Your task to perform on an android device: See recent photos Image 0: 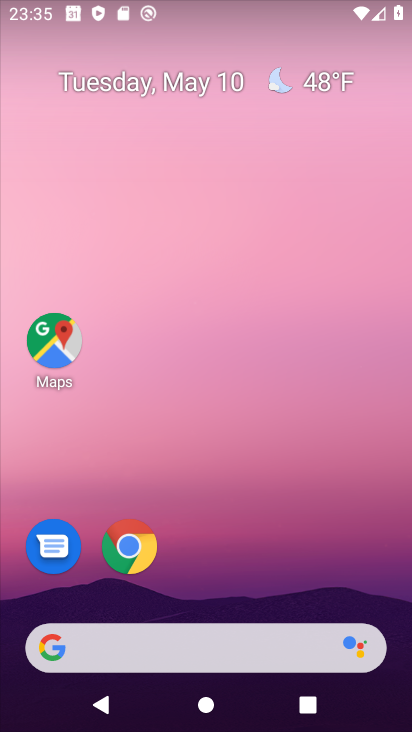
Step 0: press home button
Your task to perform on an android device: See recent photos Image 1: 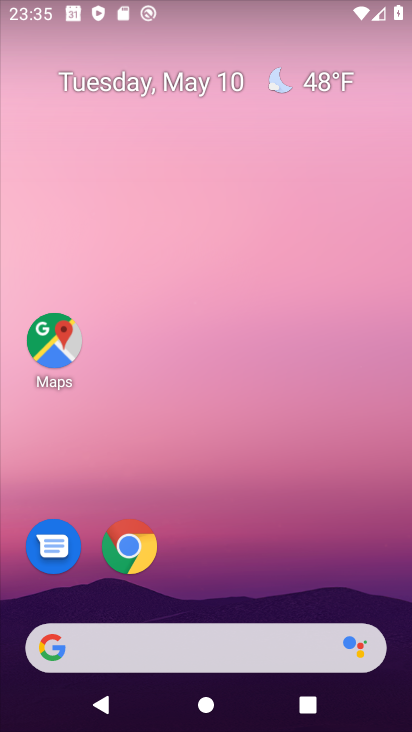
Step 1: drag from (217, 575) to (221, 184)
Your task to perform on an android device: See recent photos Image 2: 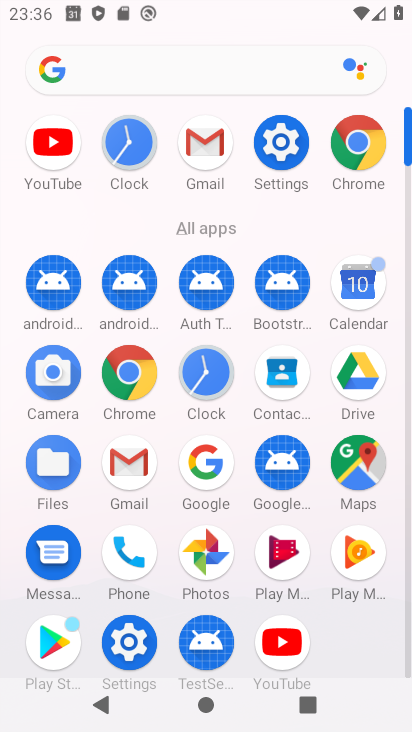
Step 2: click (197, 543)
Your task to perform on an android device: See recent photos Image 3: 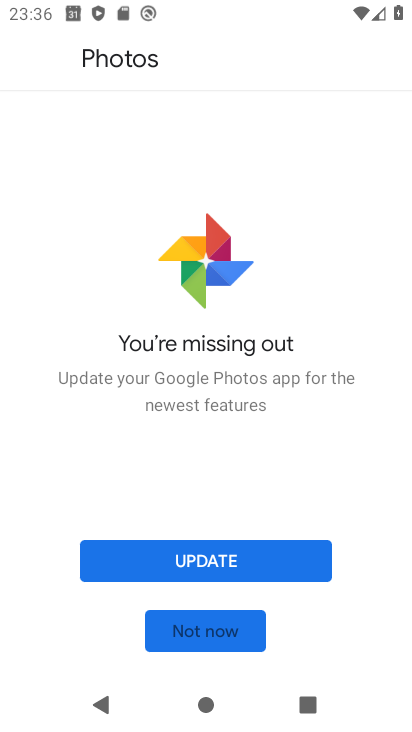
Step 3: click (230, 621)
Your task to perform on an android device: See recent photos Image 4: 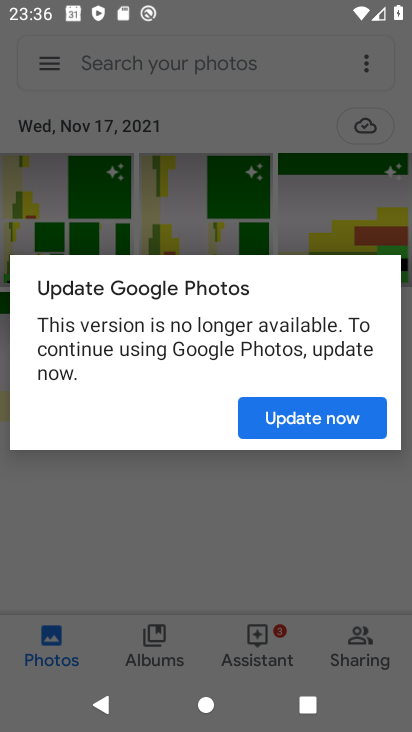
Step 4: click (282, 419)
Your task to perform on an android device: See recent photos Image 5: 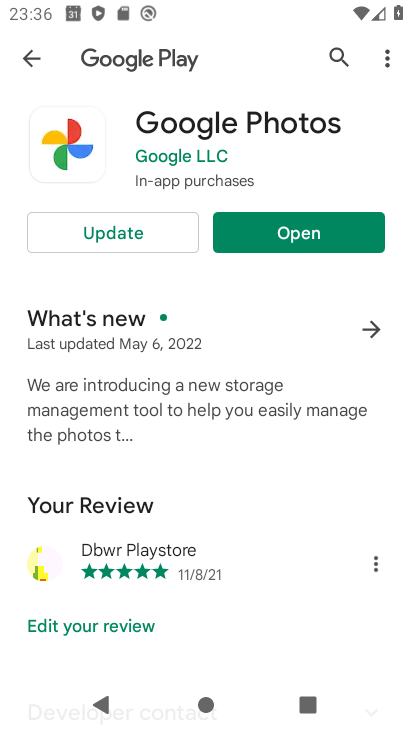
Step 5: click (306, 236)
Your task to perform on an android device: See recent photos Image 6: 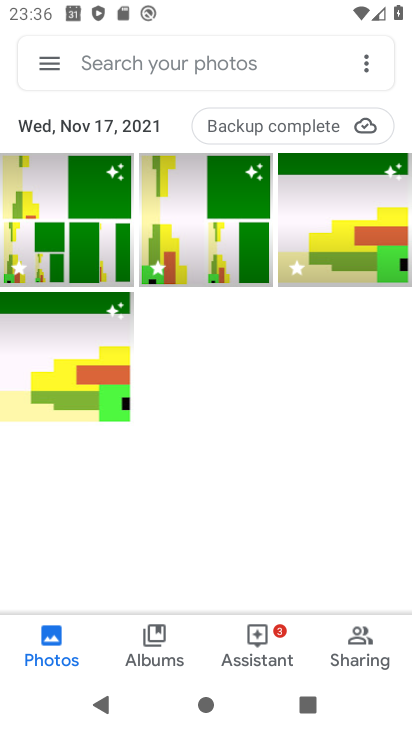
Step 6: task complete